Your task to perform on an android device: show emergency info Image 0: 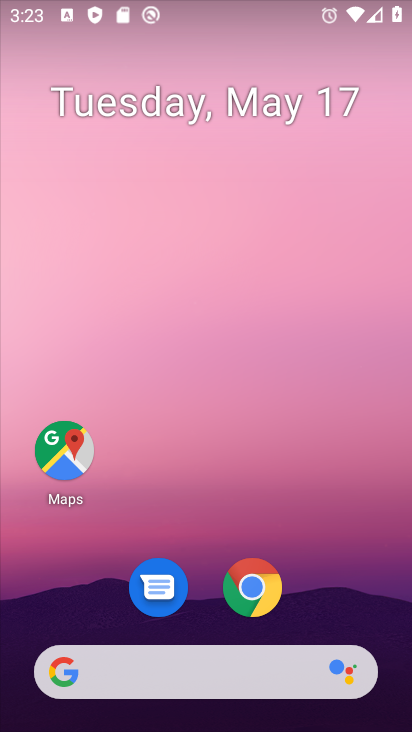
Step 0: drag from (199, 569) to (401, 91)
Your task to perform on an android device: show emergency info Image 1: 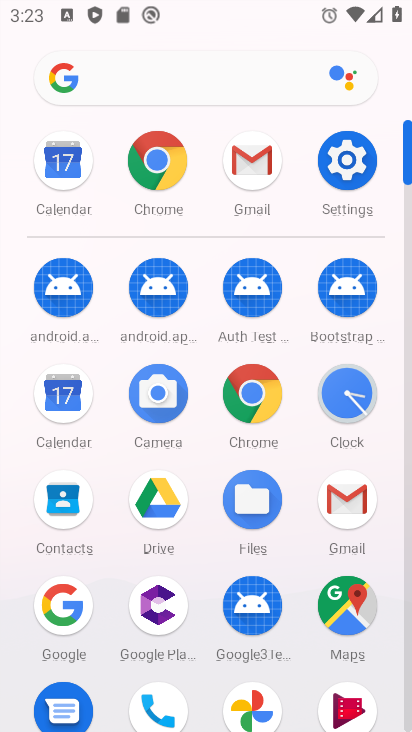
Step 1: click (346, 155)
Your task to perform on an android device: show emergency info Image 2: 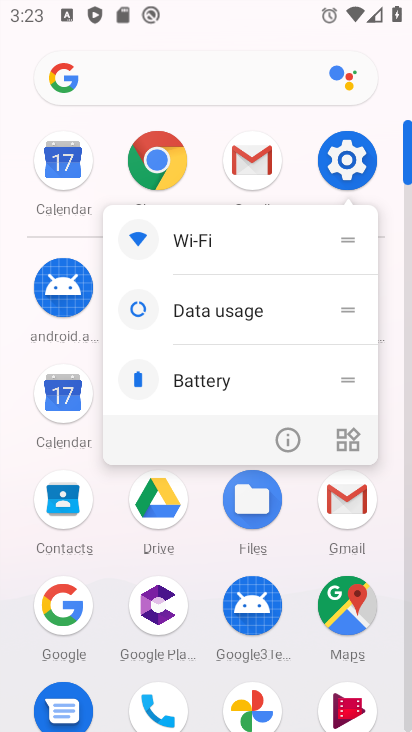
Step 2: click (273, 442)
Your task to perform on an android device: show emergency info Image 3: 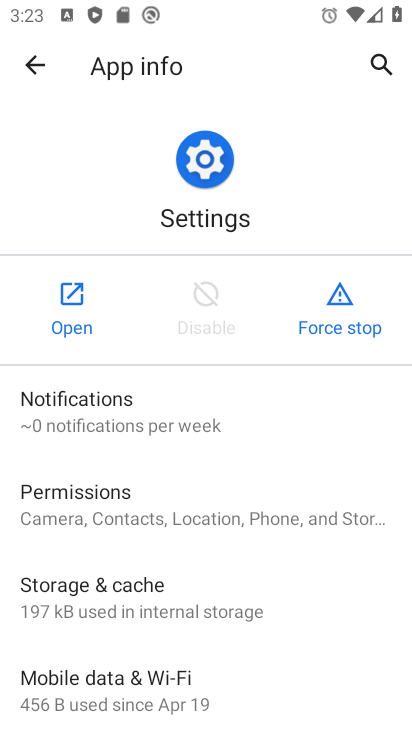
Step 3: click (63, 322)
Your task to perform on an android device: show emergency info Image 4: 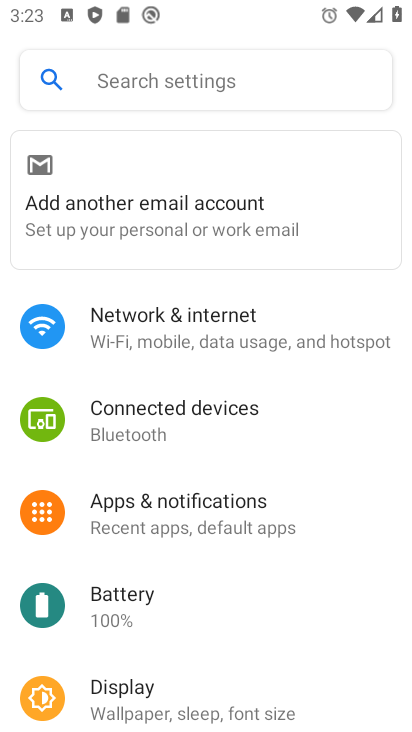
Step 4: drag from (220, 658) to (350, 73)
Your task to perform on an android device: show emergency info Image 5: 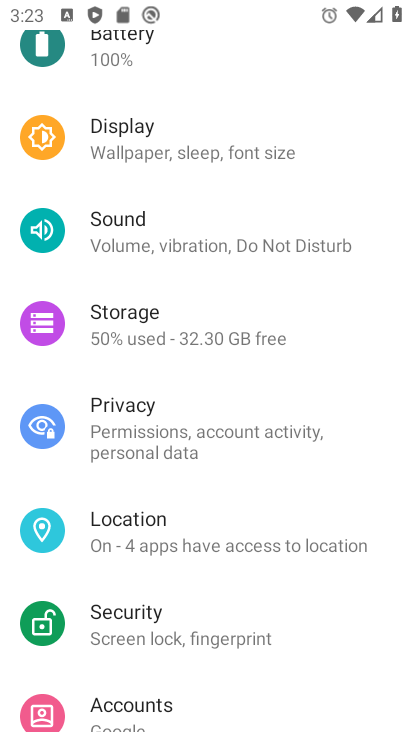
Step 5: drag from (197, 593) to (307, 130)
Your task to perform on an android device: show emergency info Image 6: 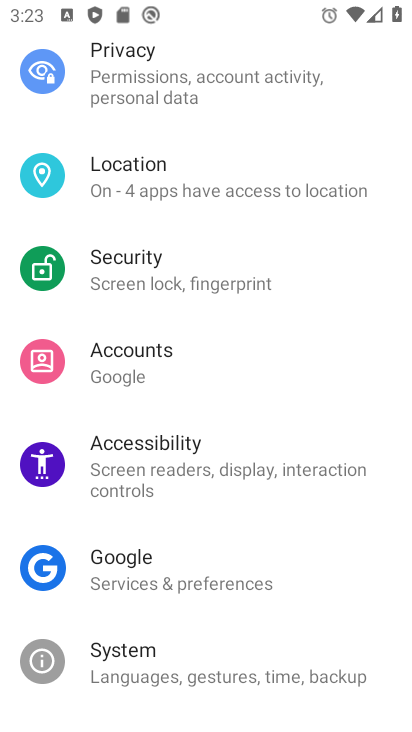
Step 6: drag from (159, 646) to (292, 160)
Your task to perform on an android device: show emergency info Image 7: 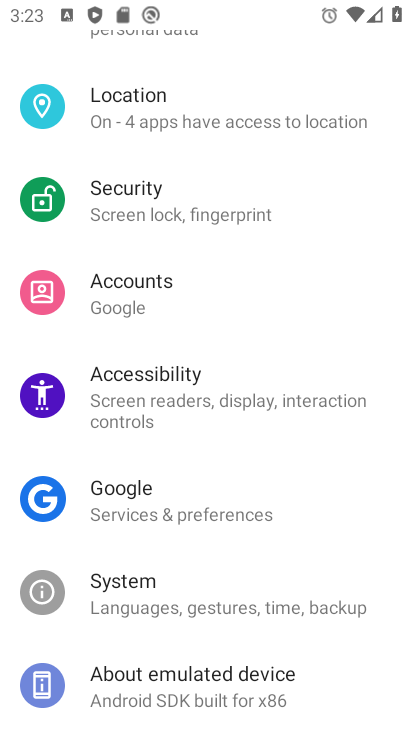
Step 7: click (133, 680)
Your task to perform on an android device: show emergency info Image 8: 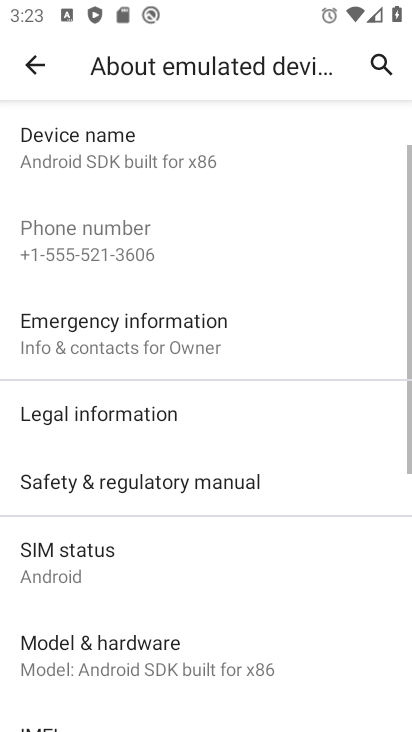
Step 8: click (141, 351)
Your task to perform on an android device: show emergency info Image 9: 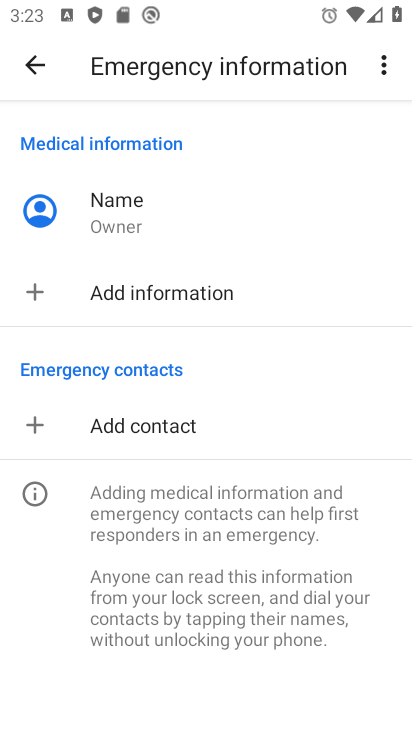
Step 9: task complete